Your task to perform on an android device: add a label to a message in the gmail app Image 0: 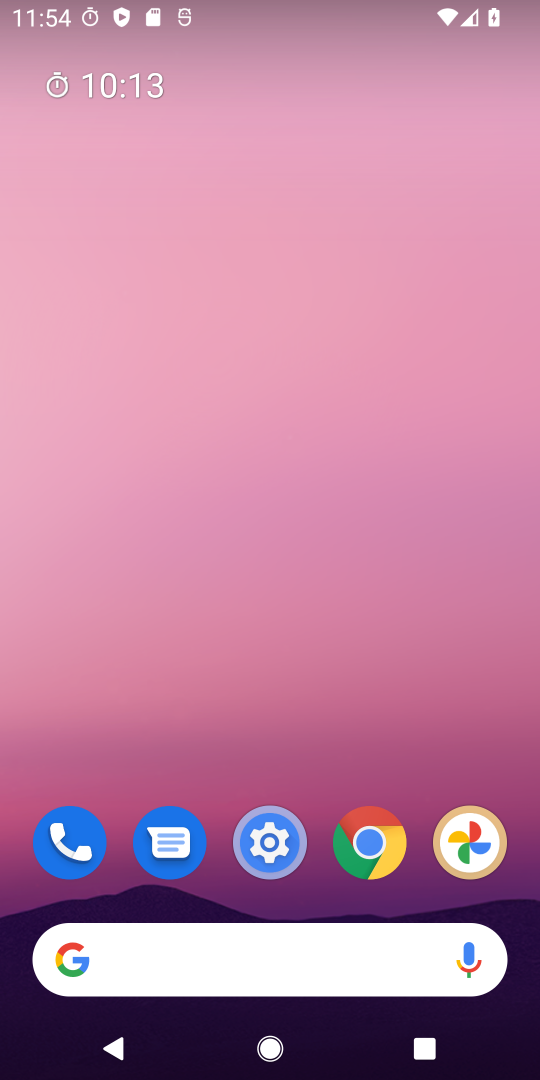
Step 0: drag from (320, 886) to (327, 46)
Your task to perform on an android device: add a label to a message in the gmail app Image 1: 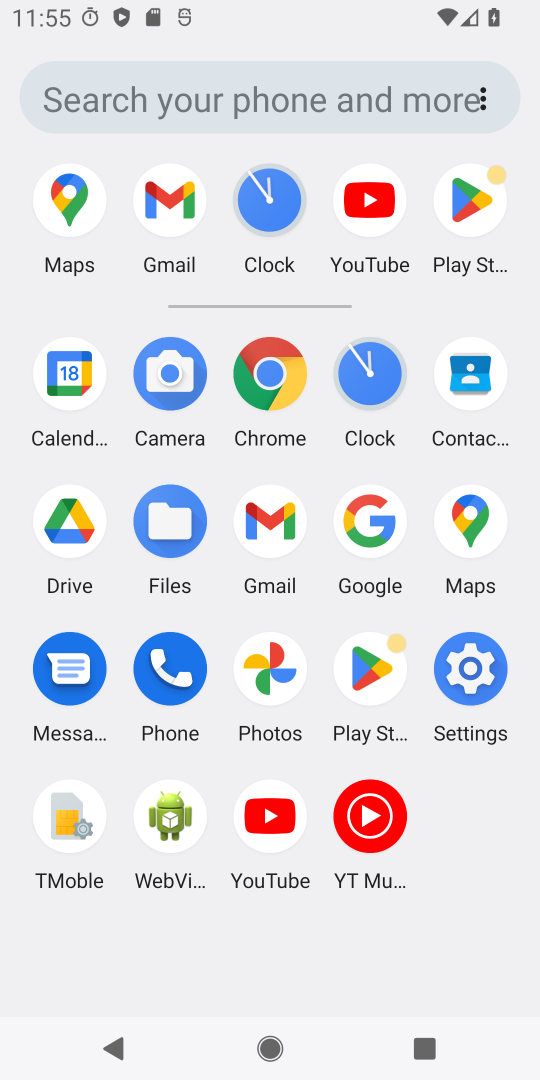
Step 1: click (262, 512)
Your task to perform on an android device: add a label to a message in the gmail app Image 2: 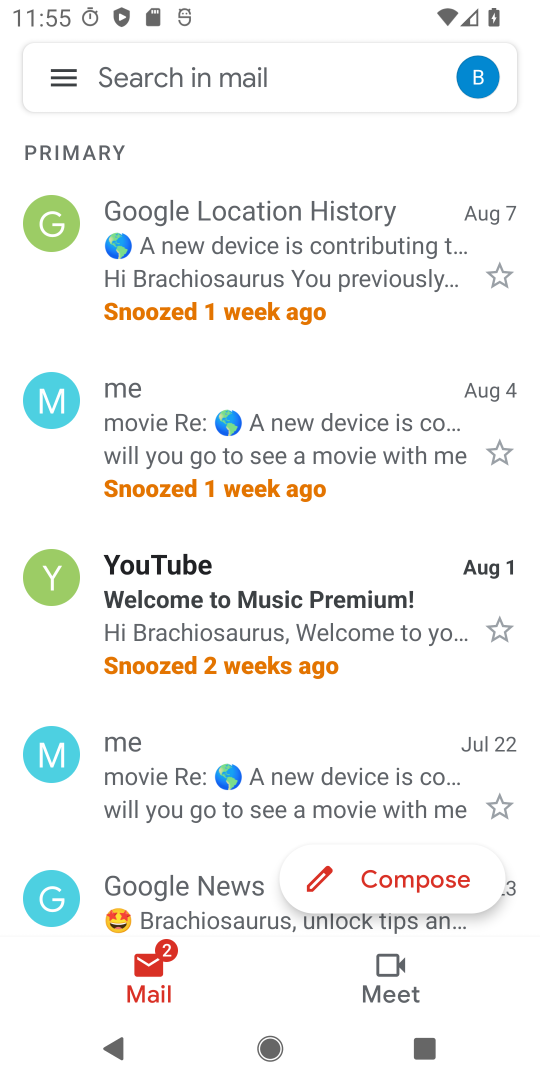
Step 2: click (49, 393)
Your task to perform on an android device: add a label to a message in the gmail app Image 3: 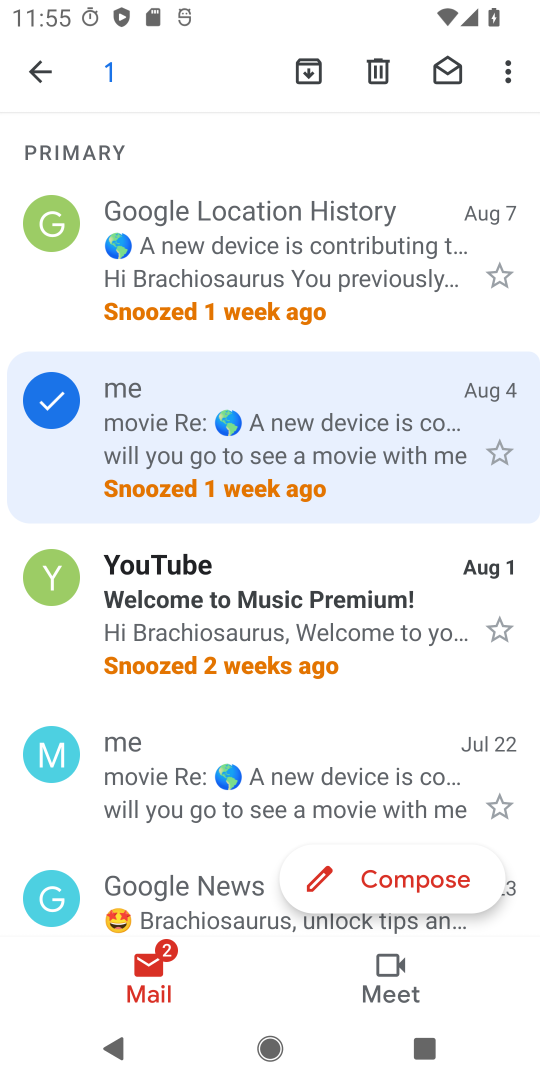
Step 3: click (513, 68)
Your task to perform on an android device: add a label to a message in the gmail app Image 4: 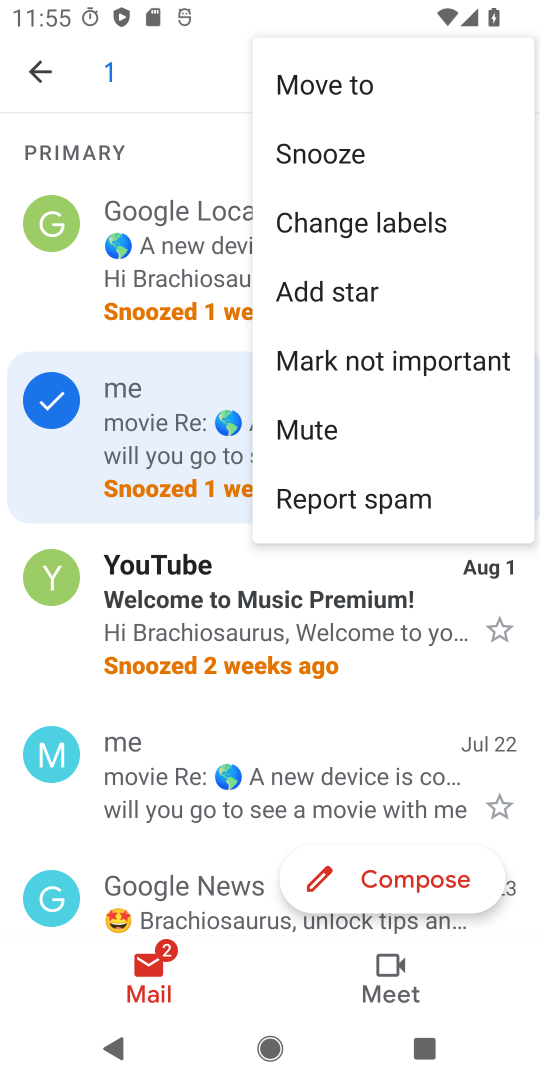
Step 4: click (313, 238)
Your task to perform on an android device: add a label to a message in the gmail app Image 5: 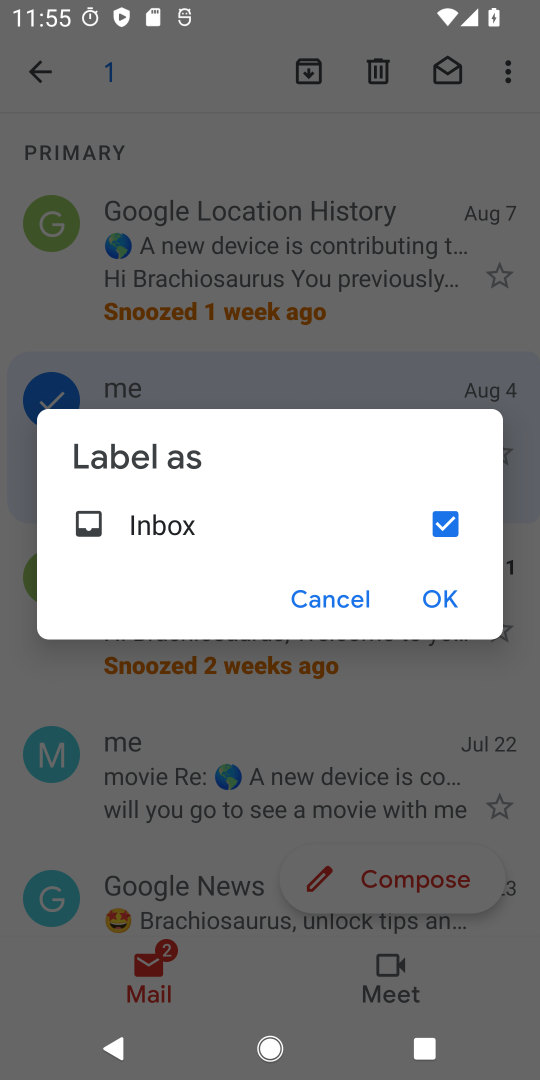
Step 5: click (425, 589)
Your task to perform on an android device: add a label to a message in the gmail app Image 6: 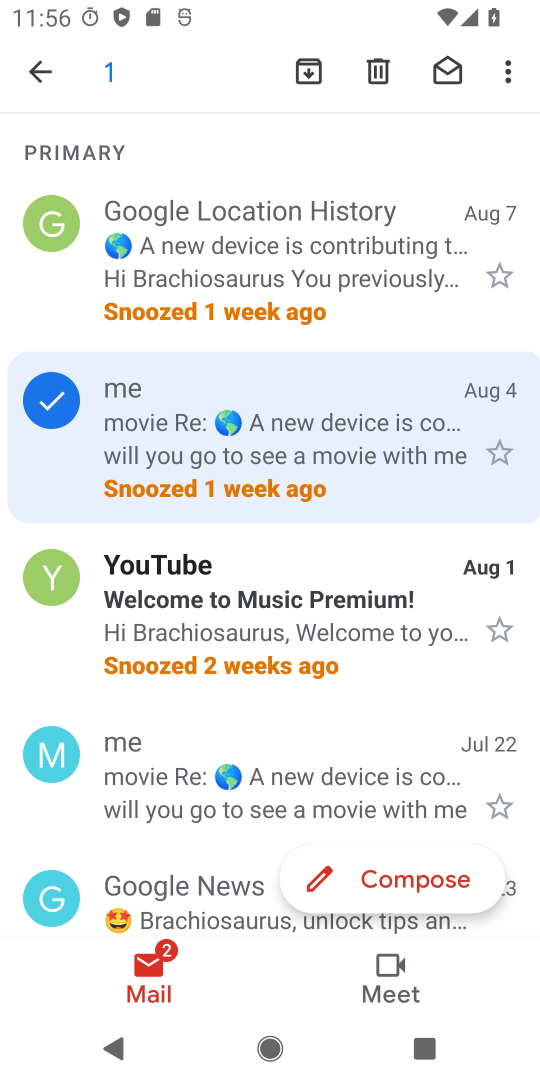
Step 6: task complete